Your task to perform on an android device: Is it going to rain today? Image 0: 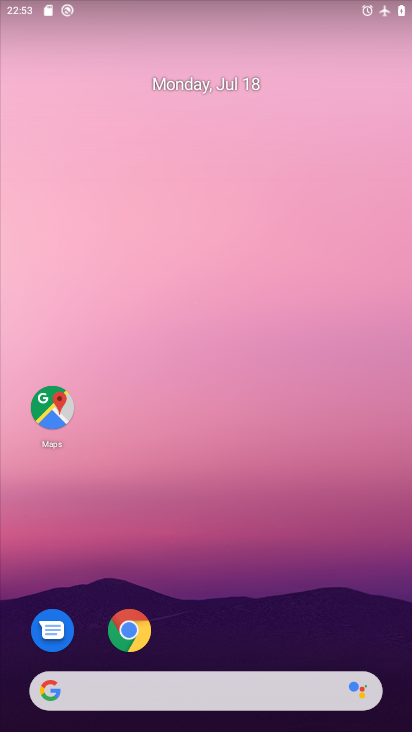
Step 0: click (126, 637)
Your task to perform on an android device: Is it going to rain today? Image 1: 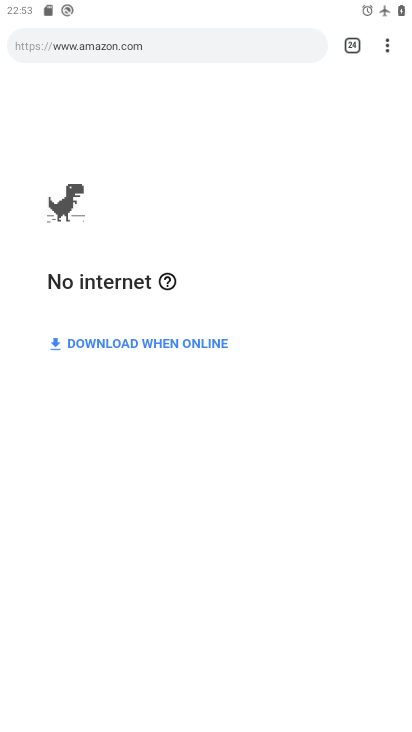
Step 1: click (392, 41)
Your task to perform on an android device: Is it going to rain today? Image 2: 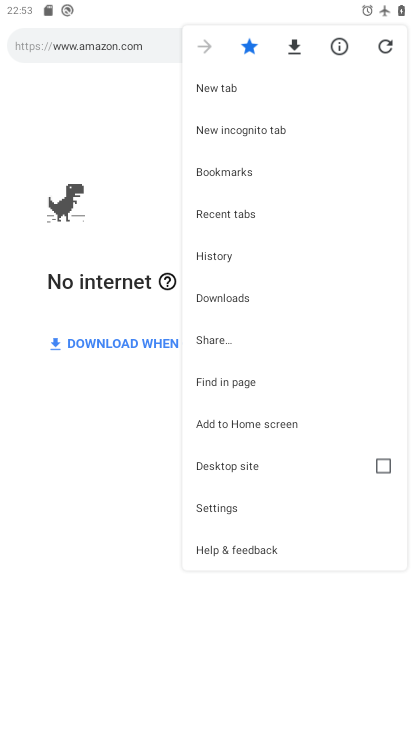
Step 2: click (206, 81)
Your task to perform on an android device: Is it going to rain today? Image 3: 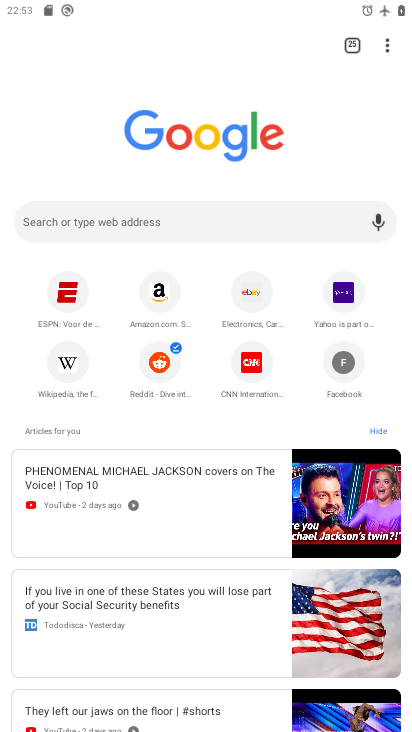
Step 3: click (151, 202)
Your task to perform on an android device: Is it going to rain today? Image 4: 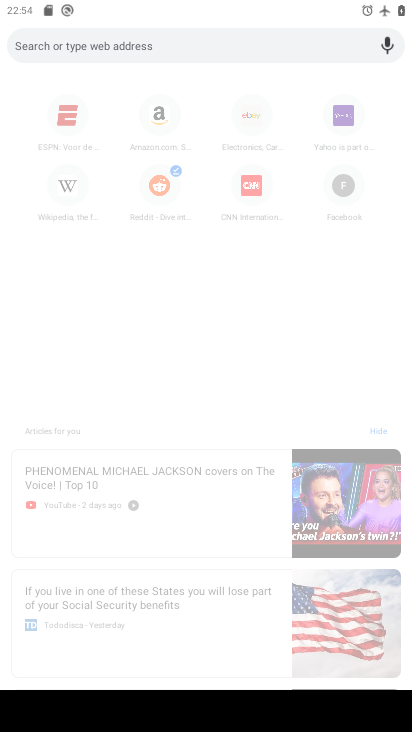
Step 4: type "Is it going to rain today "
Your task to perform on an android device: Is it going to rain today? Image 5: 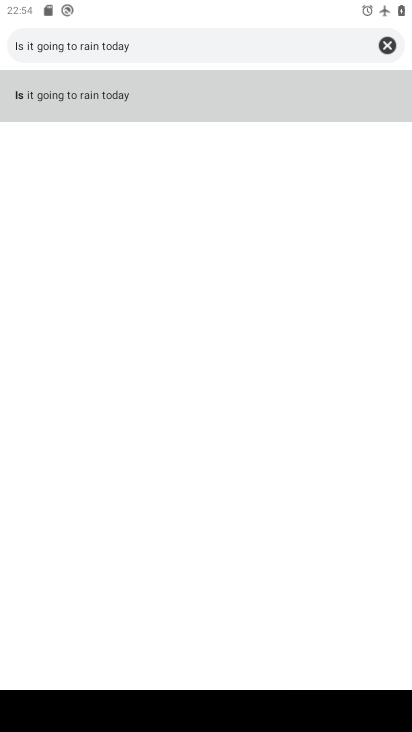
Step 5: click (150, 87)
Your task to perform on an android device: Is it going to rain today? Image 6: 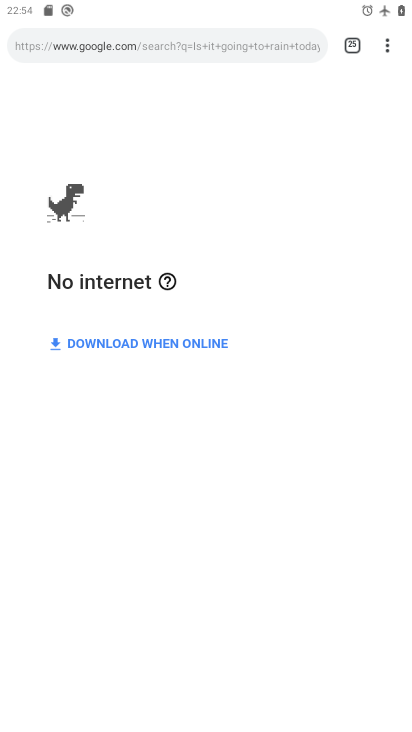
Step 6: task complete